Your task to perform on an android device: Check the news Image 0: 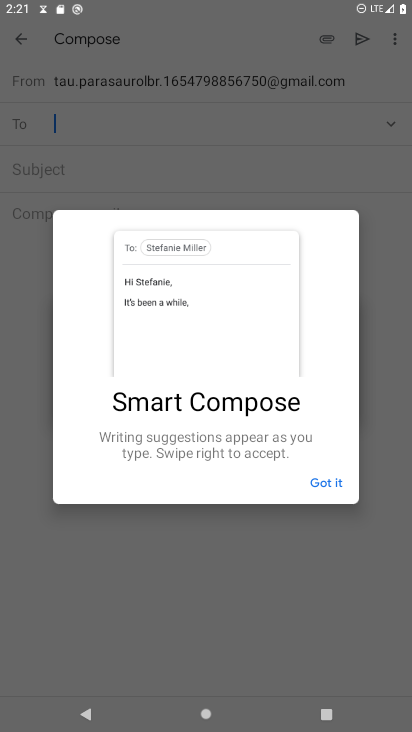
Step 0: press home button
Your task to perform on an android device: Check the news Image 1: 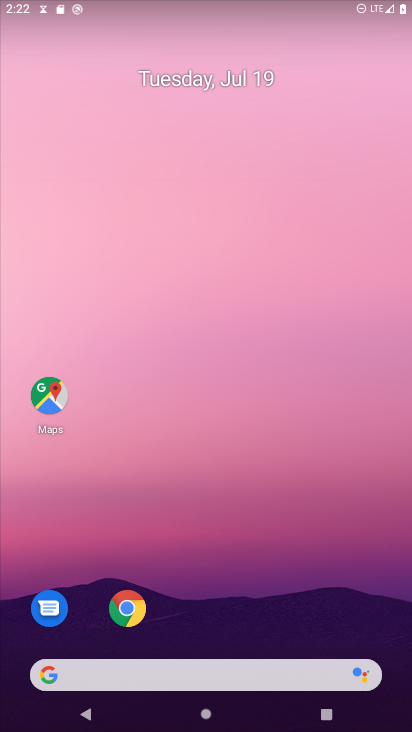
Step 1: drag from (252, 667) to (330, 8)
Your task to perform on an android device: Check the news Image 2: 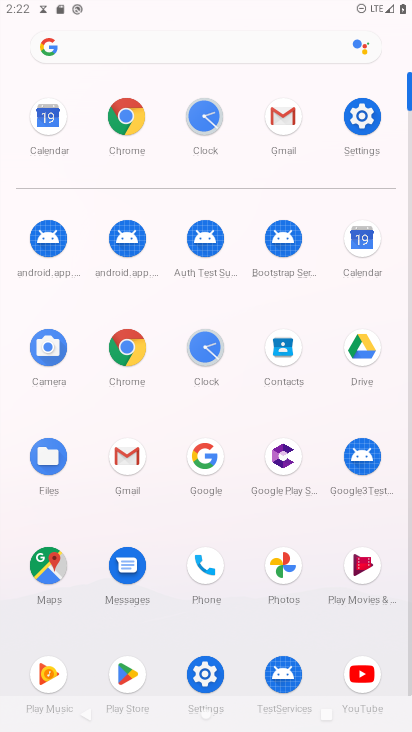
Step 2: click (127, 350)
Your task to perform on an android device: Check the news Image 3: 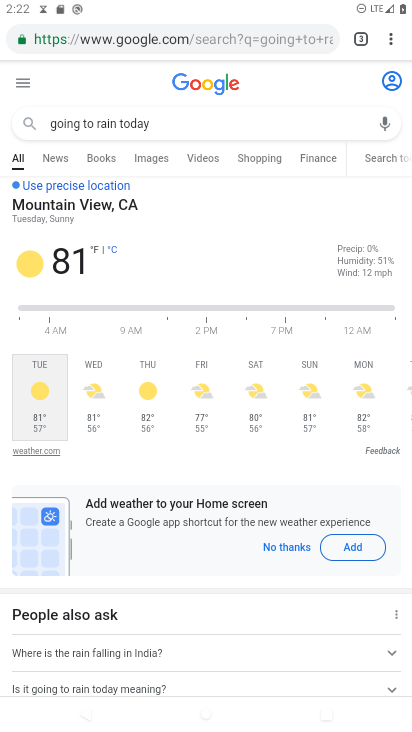
Step 3: click (245, 42)
Your task to perform on an android device: Check the news Image 4: 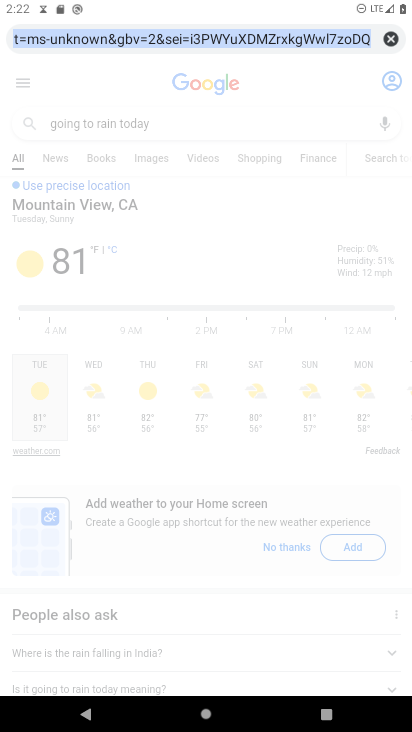
Step 4: type "check the news"
Your task to perform on an android device: Check the news Image 5: 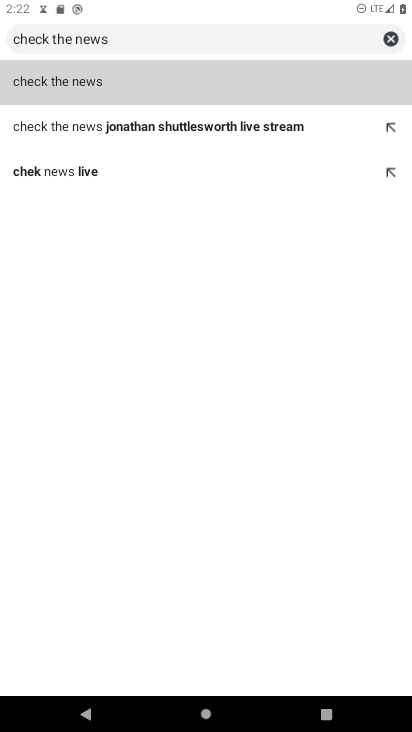
Step 5: click (27, 91)
Your task to perform on an android device: Check the news Image 6: 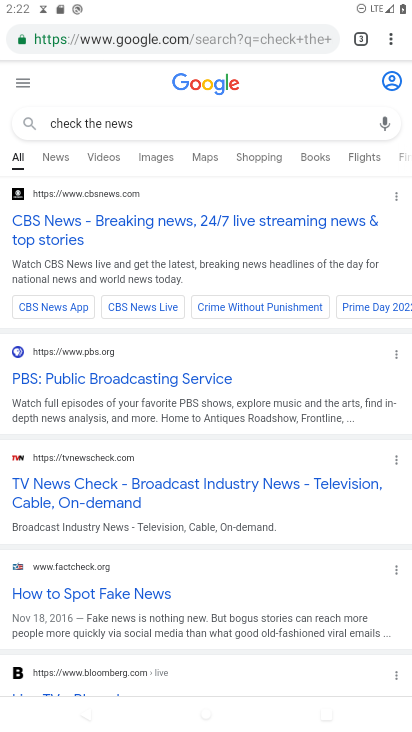
Step 6: task complete